Your task to perform on an android device: Open calendar and show me the third week of next month Image 0: 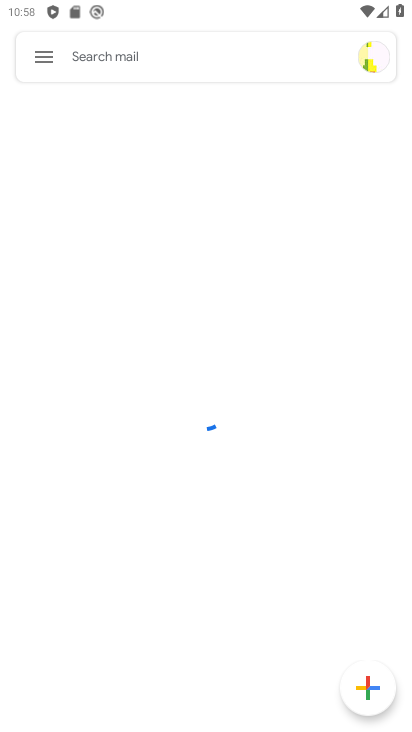
Step 0: press home button
Your task to perform on an android device: Open calendar and show me the third week of next month Image 1: 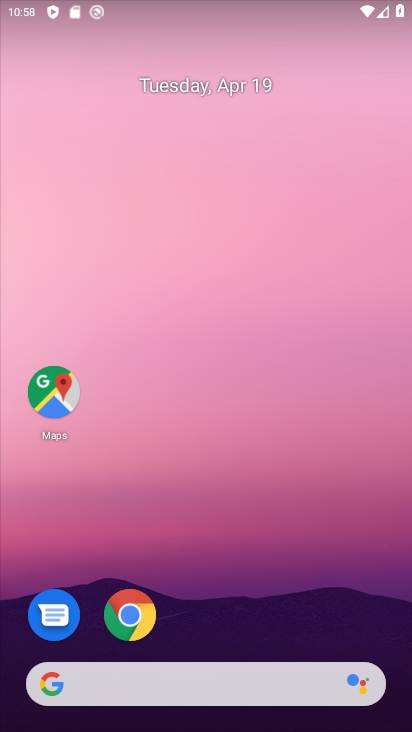
Step 1: drag from (236, 594) to (241, 214)
Your task to perform on an android device: Open calendar and show me the third week of next month Image 2: 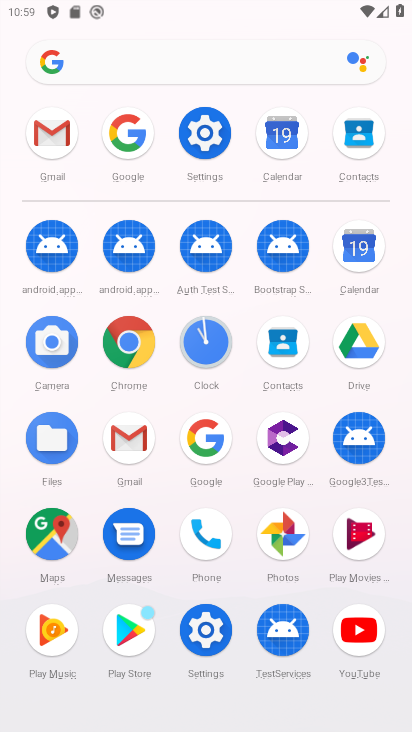
Step 2: click (351, 251)
Your task to perform on an android device: Open calendar and show me the third week of next month Image 3: 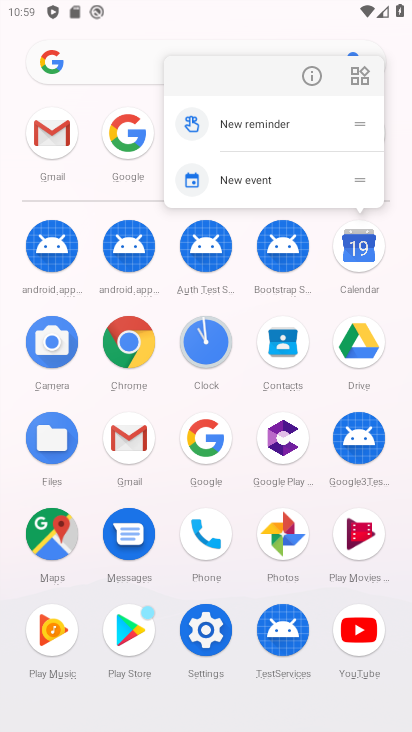
Step 3: click (361, 243)
Your task to perform on an android device: Open calendar and show me the third week of next month Image 4: 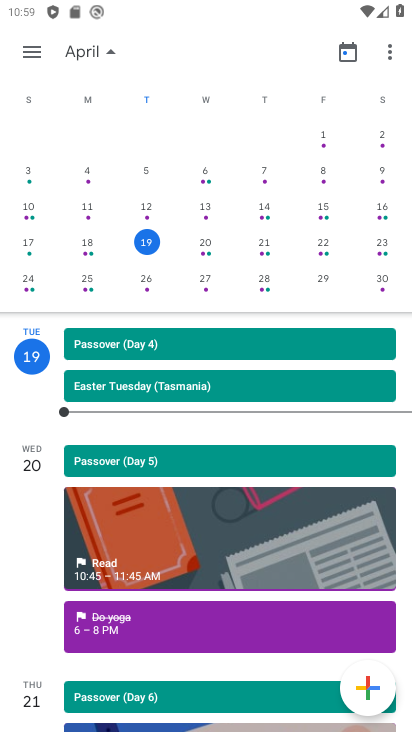
Step 4: drag from (363, 304) to (79, 216)
Your task to perform on an android device: Open calendar and show me the third week of next month Image 5: 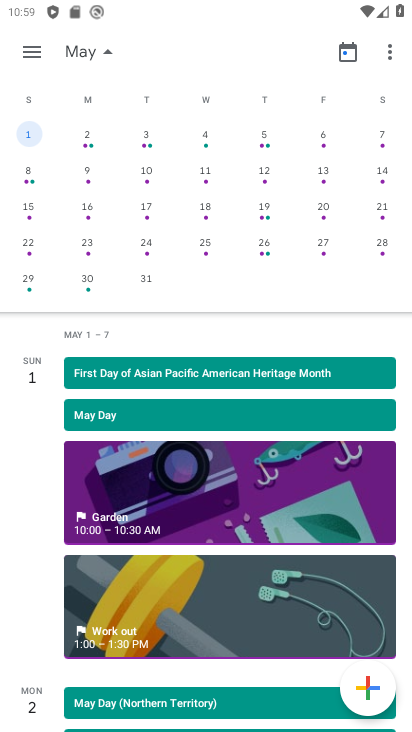
Step 5: click (144, 207)
Your task to perform on an android device: Open calendar and show me the third week of next month Image 6: 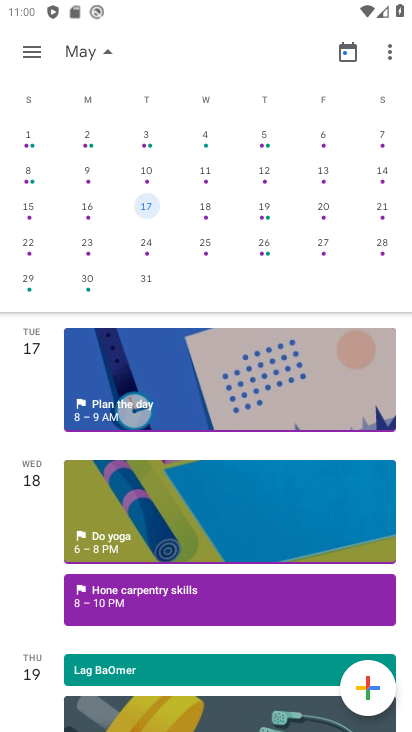
Step 6: task complete